Your task to perform on an android device: Open the phone app and click the voicemail tab. Image 0: 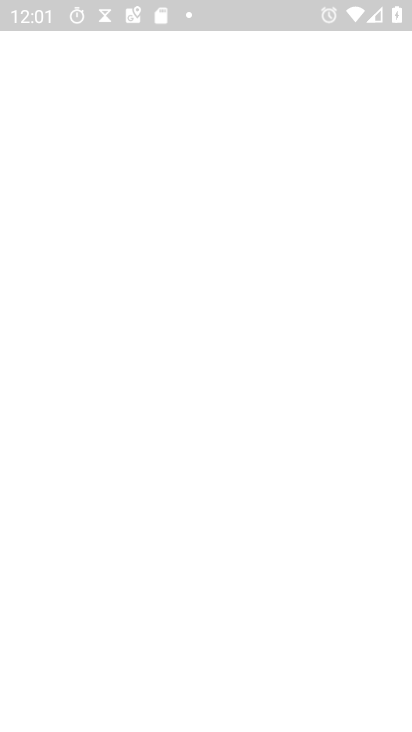
Step 0: press home button
Your task to perform on an android device: Open the phone app and click the voicemail tab. Image 1: 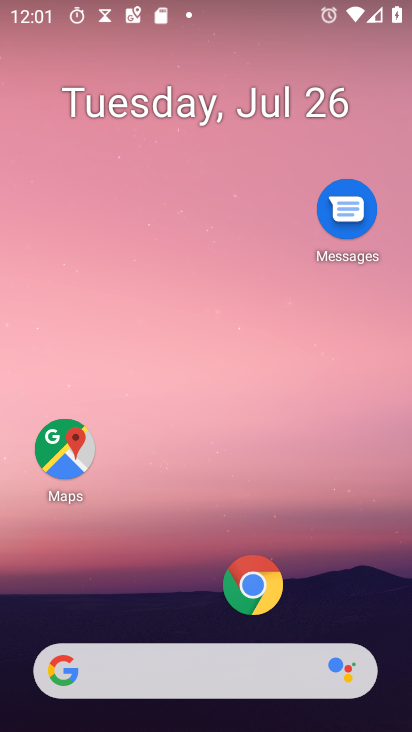
Step 1: drag from (118, 662) to (294, 111)
Your task to perform on an android device: Open the phone app and click the voicemail tab. Image 2: 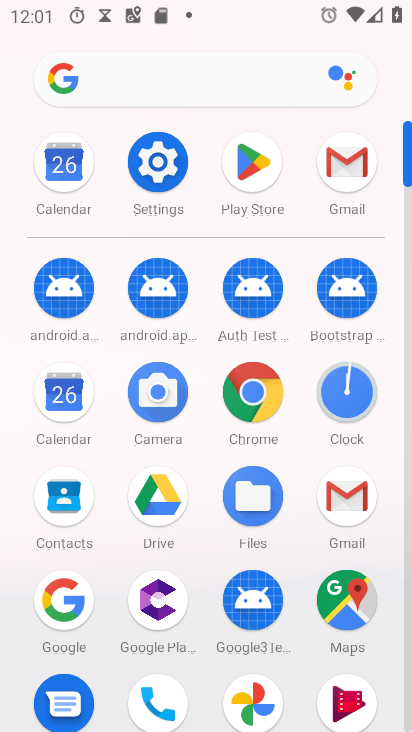
Step 2: drag from (197, 638) to (316, 234)
Your task to perform on an android device: Open the phone app and click the voicemail tab. Image 3: 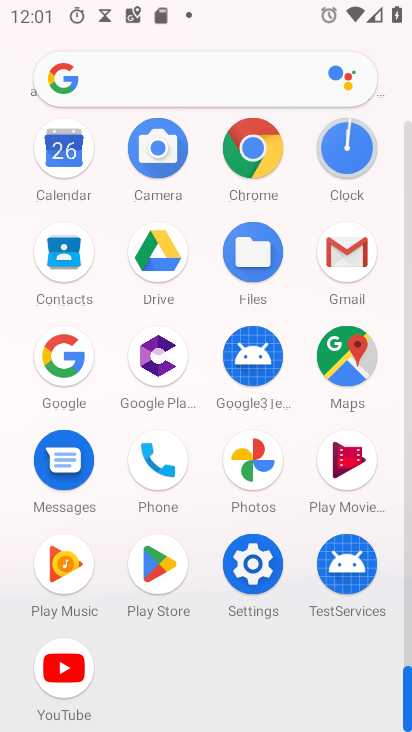
Step 3: click (150, 470)
Your task to perform on an android device: Open the phone app and click the voicemail tab. Image 4: 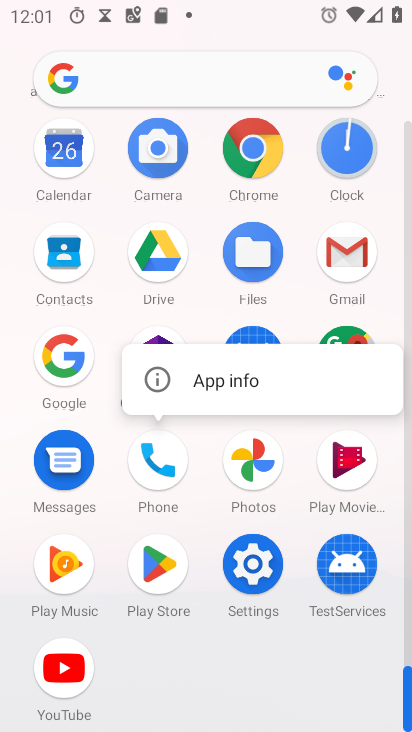
Step 4: click (146, 460)
Your task to perform on an android device: Open the phone app and click the voicemail tab. Image 5: 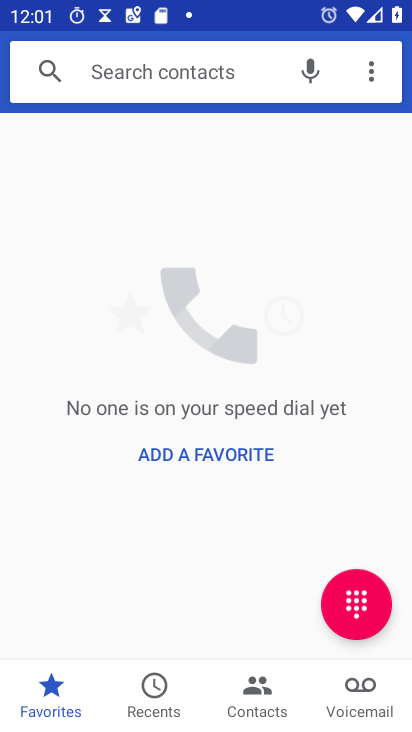
Step 5: click (365, 701)
Your task to perform on an android device: Open the phone app and click the voicemail tab. Image 6: 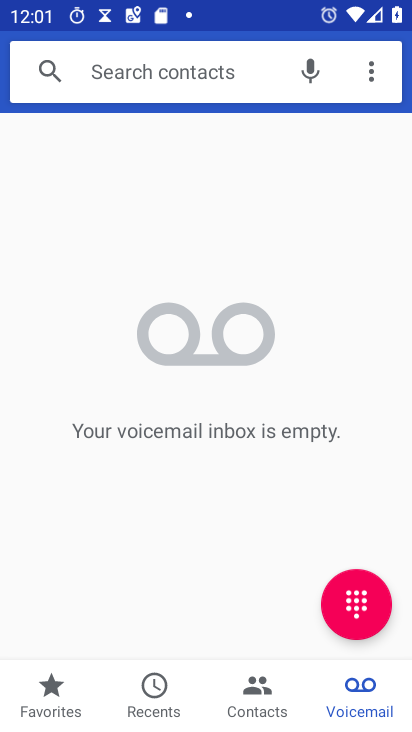
Step 6: task complete